Your task to perform on an android device: Search for vegetarian restaurants on Maps Image 0: 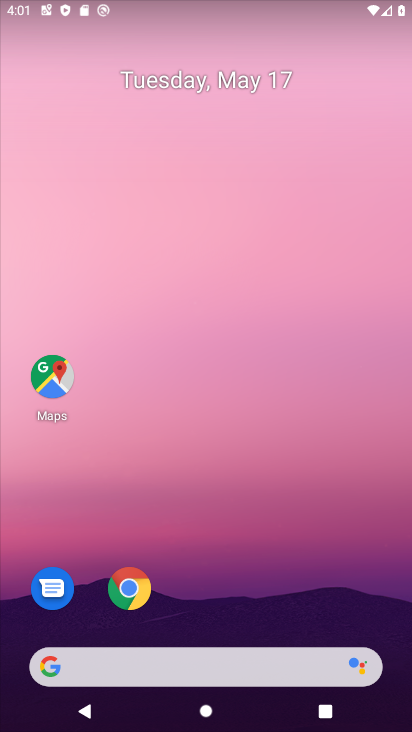
Step 0: click (50, 374)
Your task to perform on an android device: Search for vegetarian restaurants on Maps Image 1: 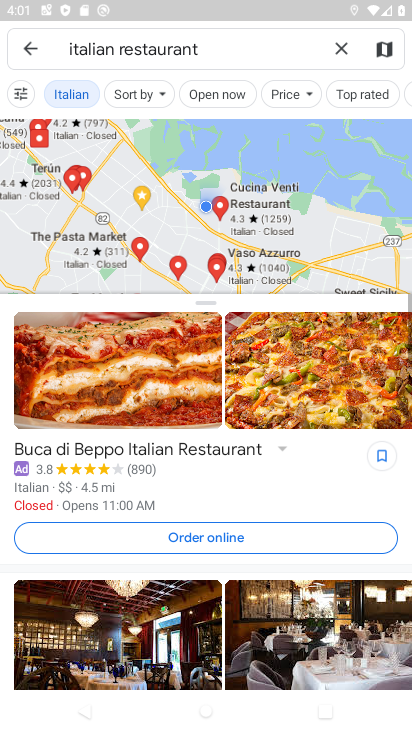
Step 1: click (344, 51)
Your task to perform on an android device: Search for vegetarian restaurants on Maps Image 2: 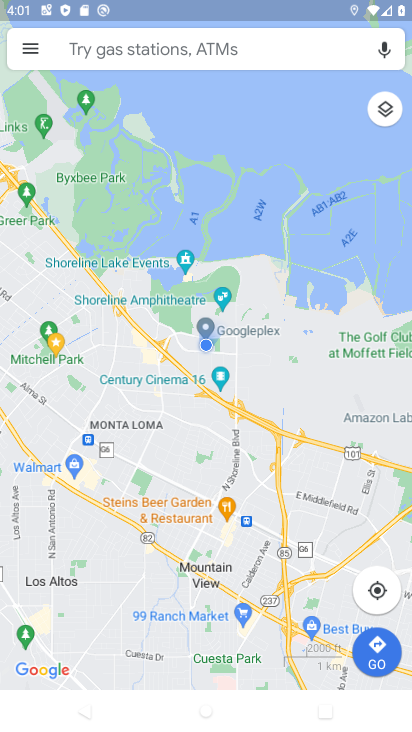
Step 2: click (255, 49)
Your task to perform on an android device: Search for vegetarian restaurants on Maps Image 3: 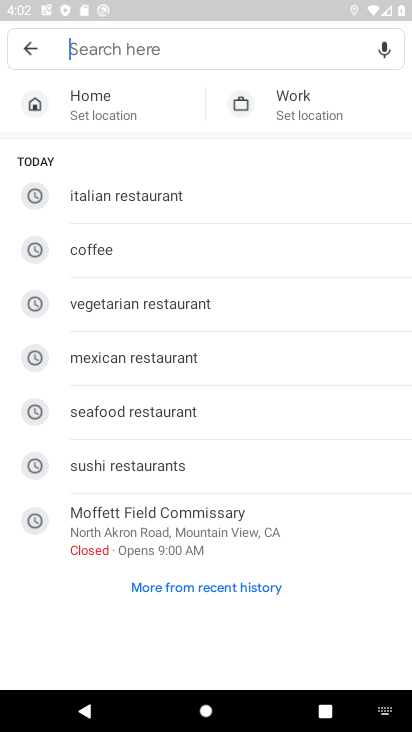
Step 3: type "vegetarian restaurants"
Your task to perform on an android device: Search for vegetarian restaurants on Maps Image 4: 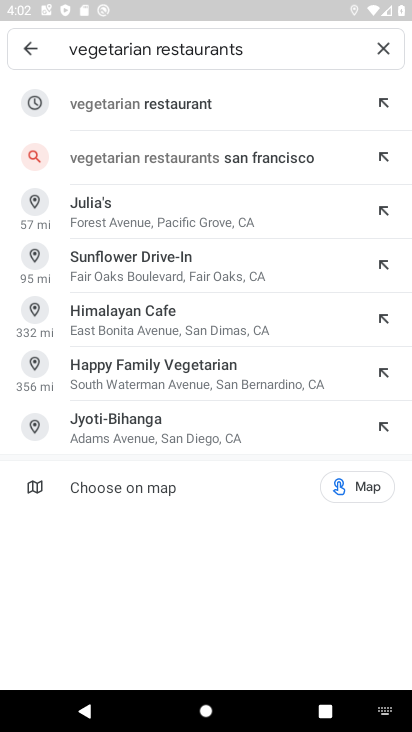
Step 4: click (134, 104)
Your task to perform on an android device: Search for vegetarian restaurants on Maps Image 5: 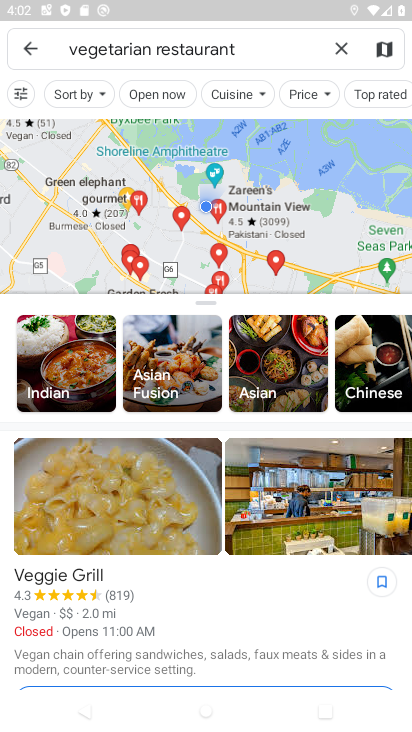
Step 5: task complete